Your task to perform on an android device: Go to Android settings Image 0: 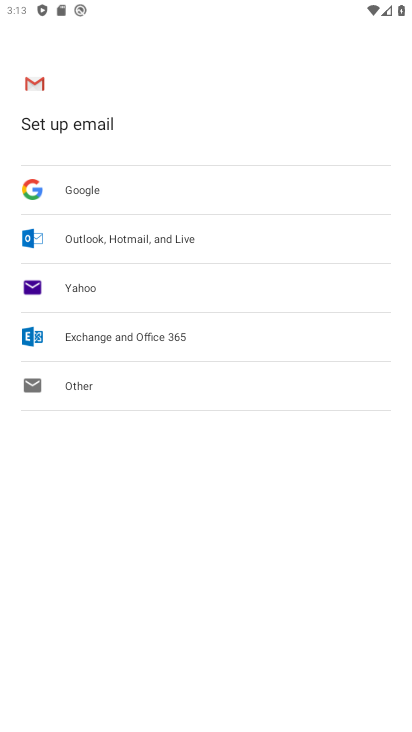
Step 0: press home button
Your task to perform on an android device: Go to Android settings Image 1: 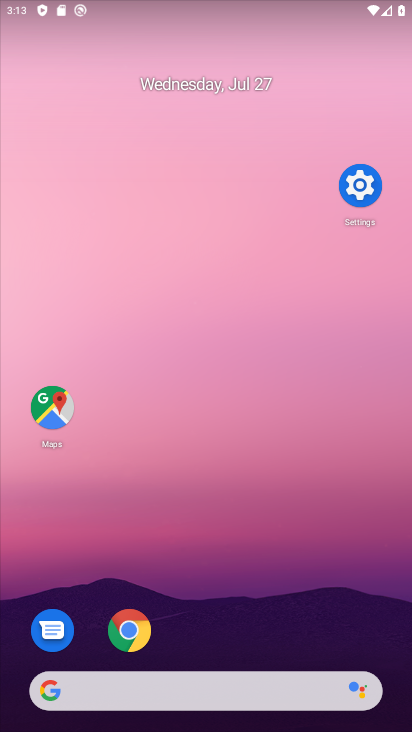
Step 1: drag from (287, 577) to (244, 207)
Your task to perform on an android device: Go to Android settings Image 2: 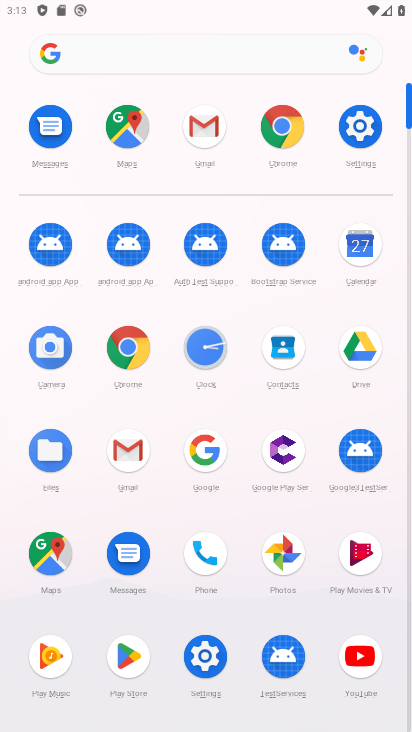
Step 2: click (348, 121)
Your task to perform on an android device: Go to Android settings Image 3: 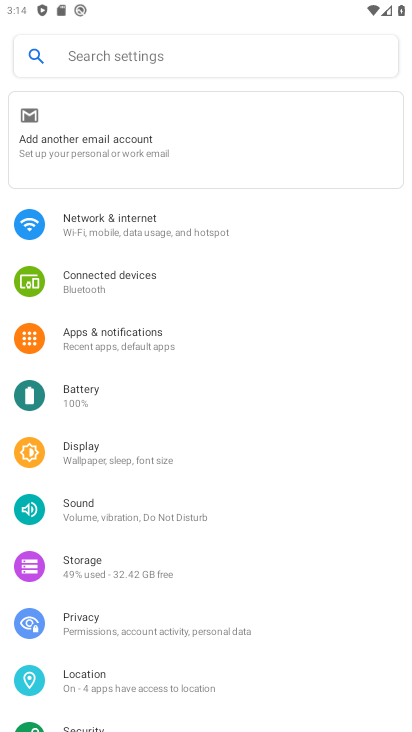
Step 3: task complete